Your task to perform on an android device: Go to calendar. Show me events next week Image 0: 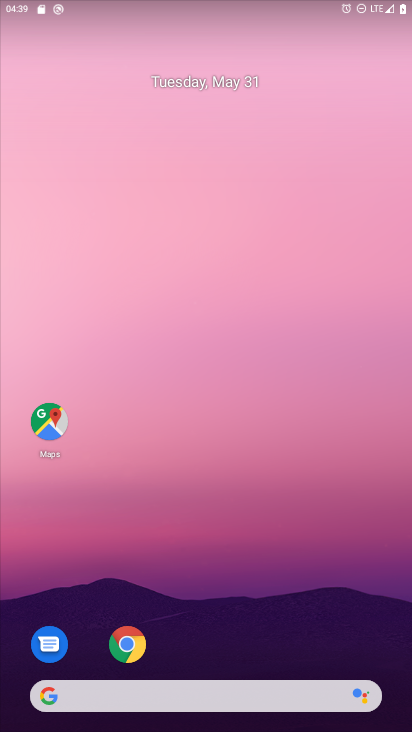
Step 0: drag from (288, 621) to (252, 105)
Your task to perform on an android device: Go to calendar. Show me events next week Image 1: 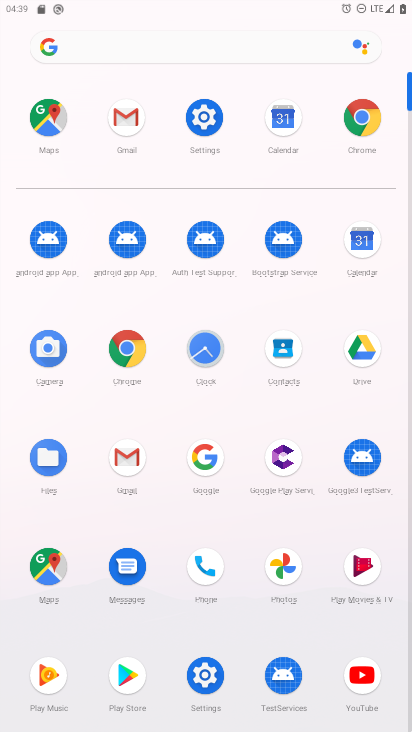
Step 1: click (283, 115)
Your task to perform on an android device: Go to calendar. Show me events next week Image 2: 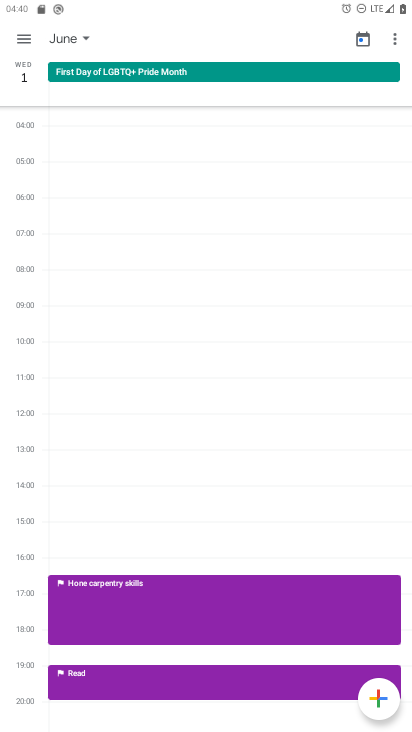
Step 2: click (61, 40)
Your task to perform on an android device: Go to calendar. Show me events next week Image 3: 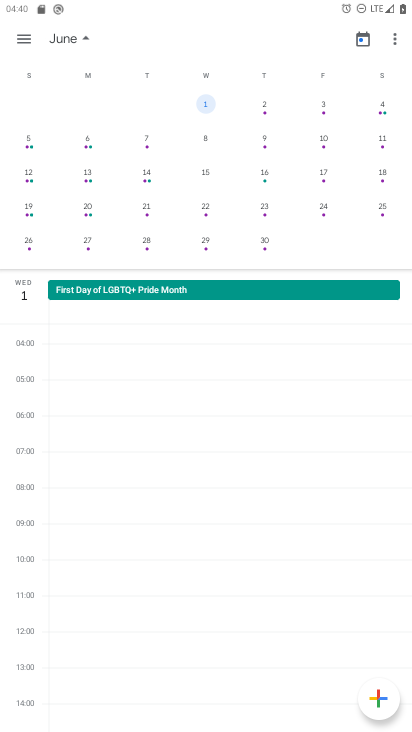
Step 3: drag from (381, 187) to (326, 176)
Your task to perform on an android device: Go to calendar. Show me events next week Image 4: 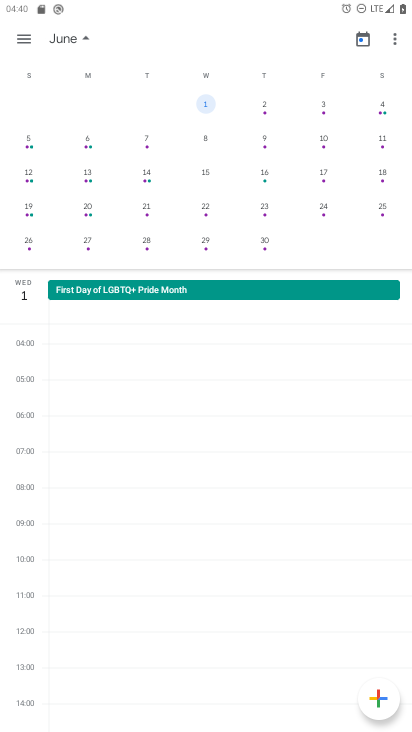
Step 4: click (31, 142)
Your task to perform on an android device: Go to calendar. Show me events next week Image 5: 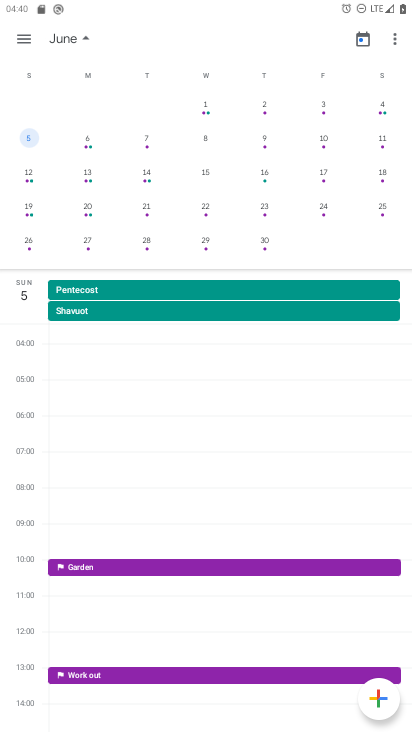
Step 5: click (25, 36)
Your task to perform on an android device: Go to calendar. Show me events next week Image 6: 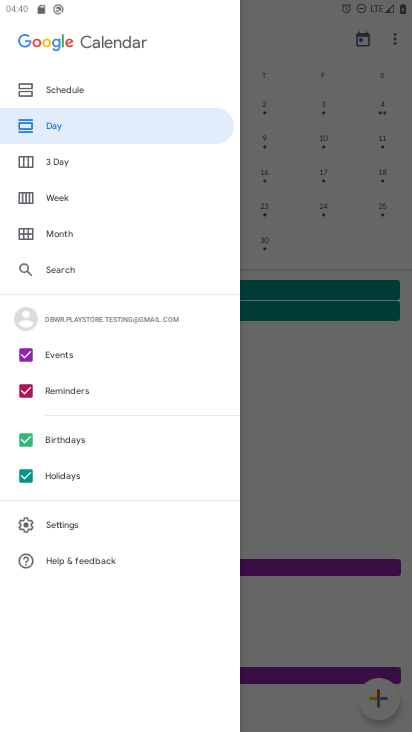
Step 6: click (53, 199)
Your task to perform on an android device: Go to calendar. Show me events next week Image 7: 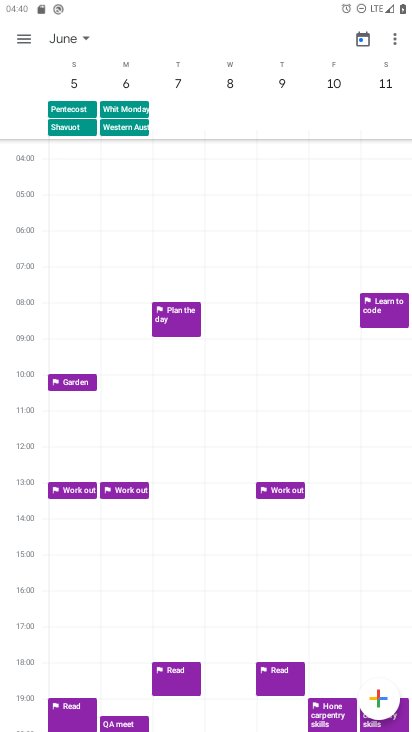
Step 7: task complete